Your task to perform on an android device: Show me productivity apps on the Play Store Image 0: 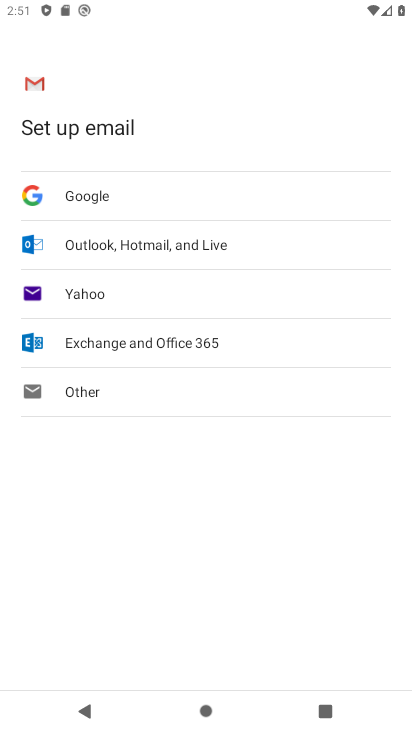
Step 0: press home button
Your task to perform on an android device: Show me productivity apps on the Play Store Image 1: 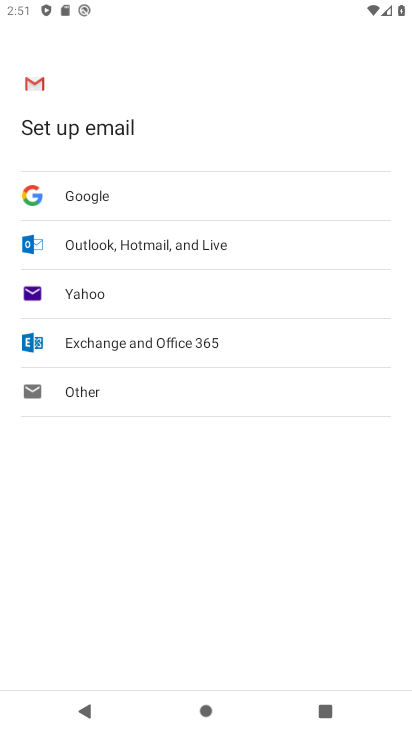
Step 1: press home button
Your task to perform on an android device: Show me productivity apps on the Play Store Image 2: 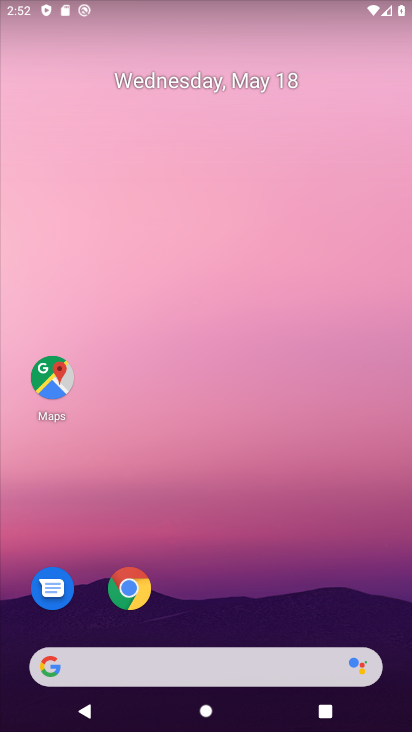
Step 2: click (145, 590)
Your task to perform on an android device: Show me productivity apps on the Play Store Image 3: 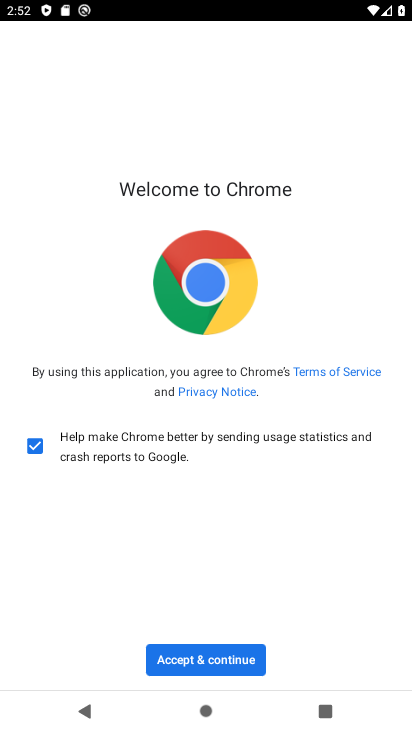
Step 3: click (228, 675)
Your task to perform on an android device: Show me productivity apps on the Play Store Image 4: 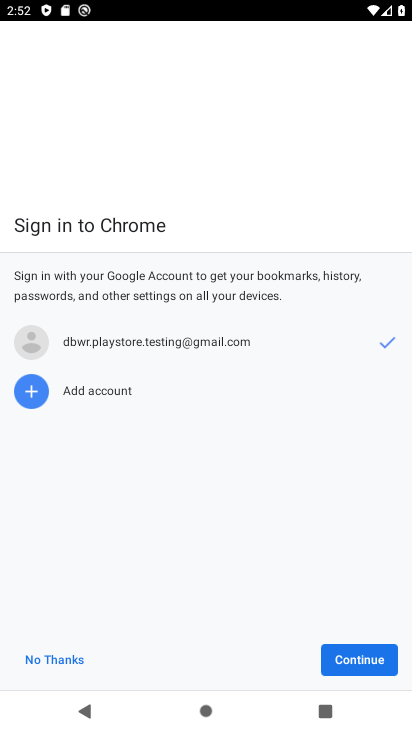
Step 4: press home button
Your task to perform on an android device: Show me productivity apps on the Play Store Image 5: 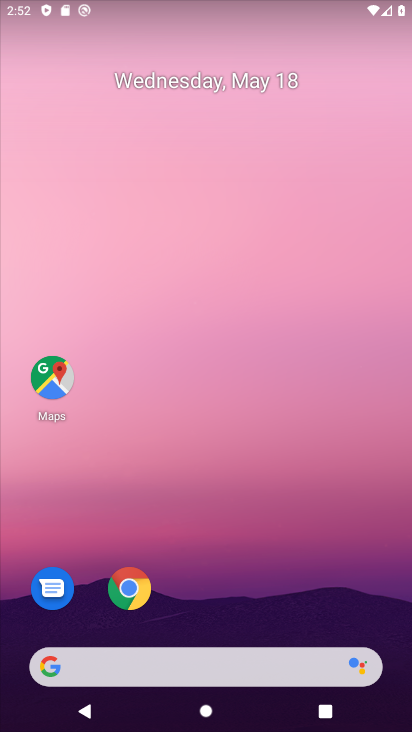
Step 5: drag from (367, 542) to (287, 33)
Your task to perform on an android device: Show me productivity apps on the Play Store Image 6: 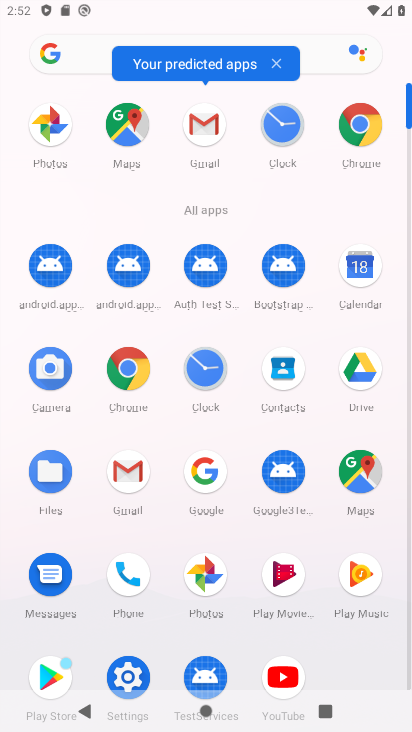
Step 6: click (40, 682)
Your task to perform on an android device: Show me productivity apps on the Play Store Image 7: 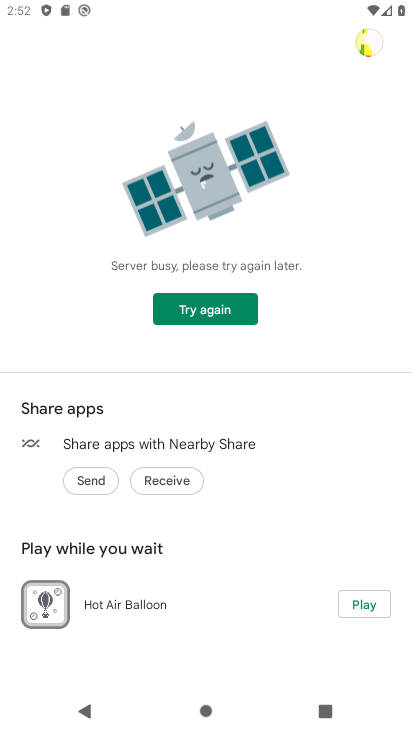
Step 7: task complete